Your task to perform on an android device: toggle airplane mode Image 0: 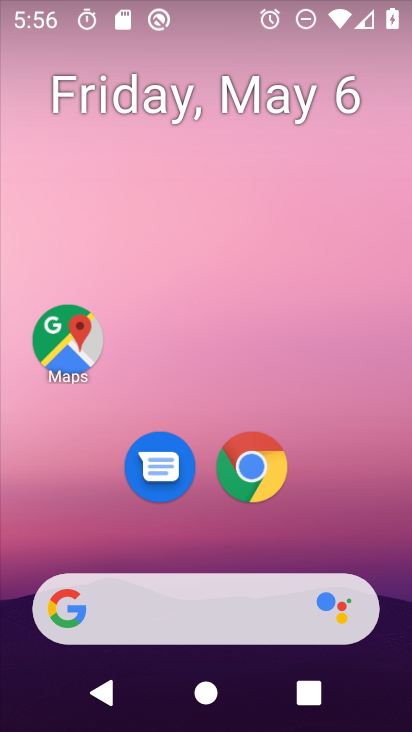
Step 0: drag from (305, 531) to (313, 231)
Your task to perform on an android device: toggle airplane mode Image 1: 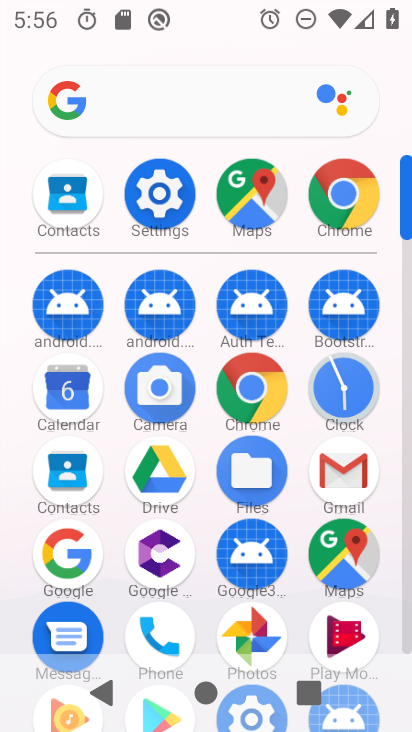
Step 1: click (162, 209)
Your task to perform on an android device: toggle airplane mode Image 2: 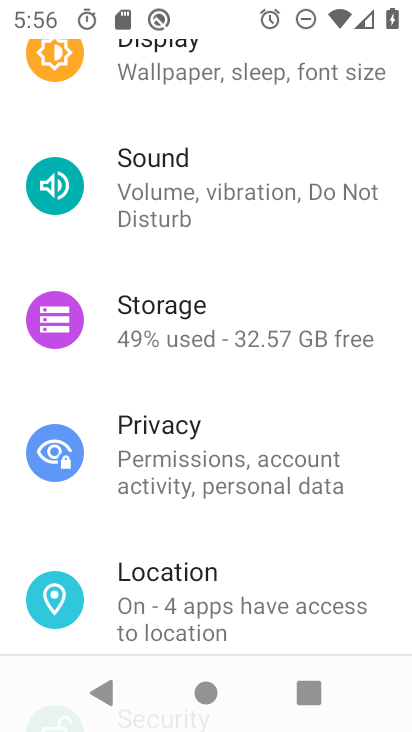
Step 2: drag from (233, 559) to (247, 241)
Your task to perform on an android device: toggle airplane mode Image 3: 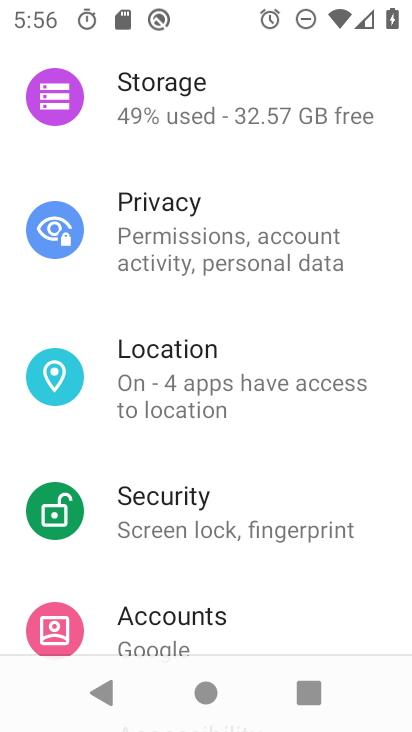
Step 3: drag from (216, 575) to (212, 191)
Your task to perform on an android device: toggle airplane mode Image 4: 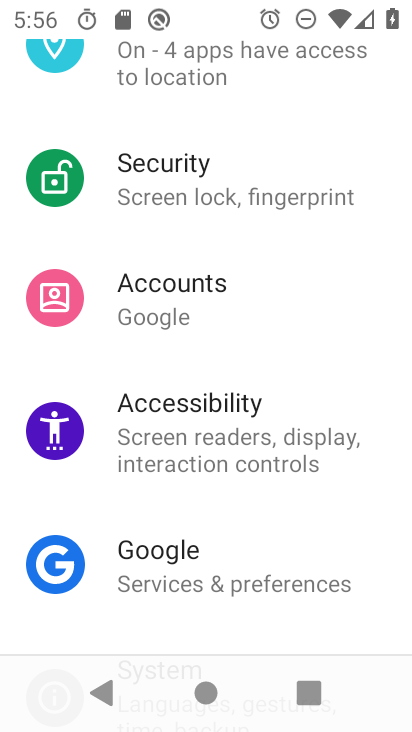
Step 4: drag from (274, 556) to (285, 239)
Your task to perform on an android device: toggle airplane mode Image 5: 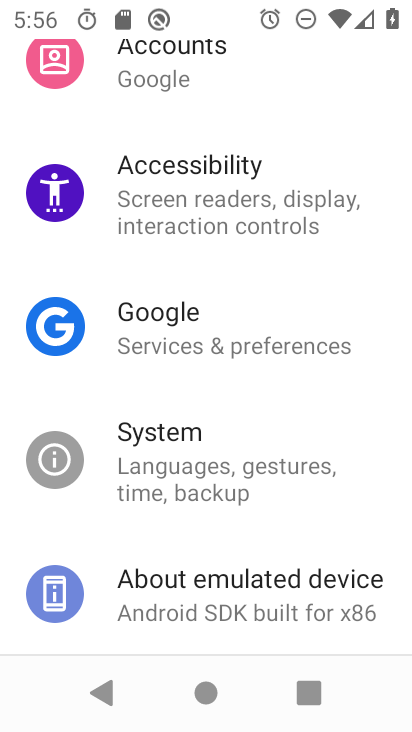
Step 5: drag from (219, 242) to (189, 561)
Your task to perform on an android device: toggle airplane mode Image 6: 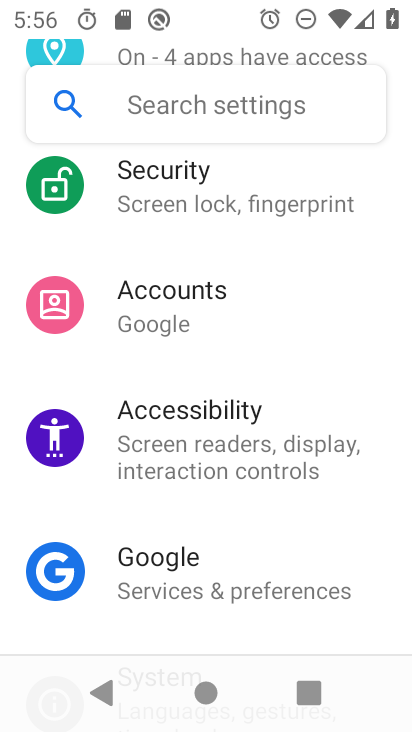
Step 6: drag from (212, 312) to (161, 540)
Your task to perform on an android device: toggle airplane mode Image 7: 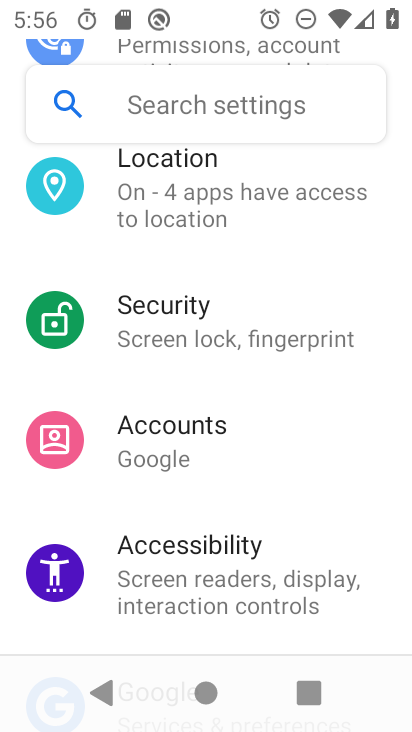
Step 7: drag from (215, 341) to (186, 623)
Your task to perform on an android device: toggle airplane mode Image 8: 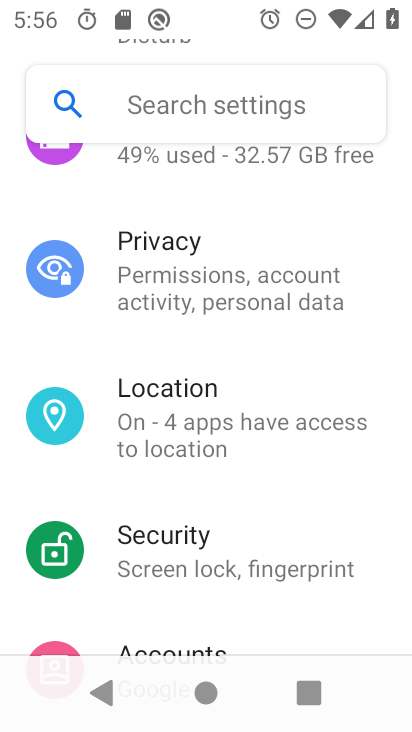
Step 8: drag from (223, 286) to (197, 604)
Your task to perform on an android device: toggle airplane mode Image 9: 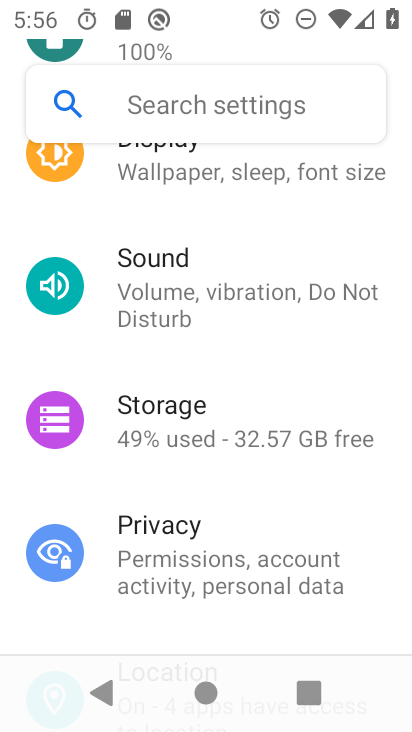
Step 9: drag from (260, 290) to (233, 619)
Your task to perform on an android device: toggle airplane mode Image 10: 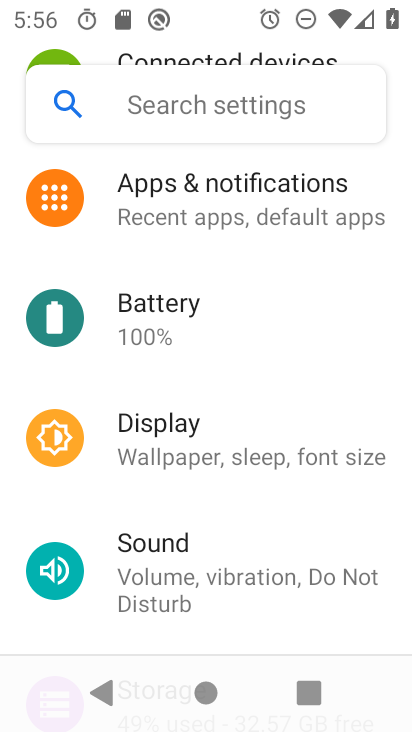
Step 10: drag from (249, 272) to (250, 625)
Your task to perform on an android device: toggle airplane mode Image 11: 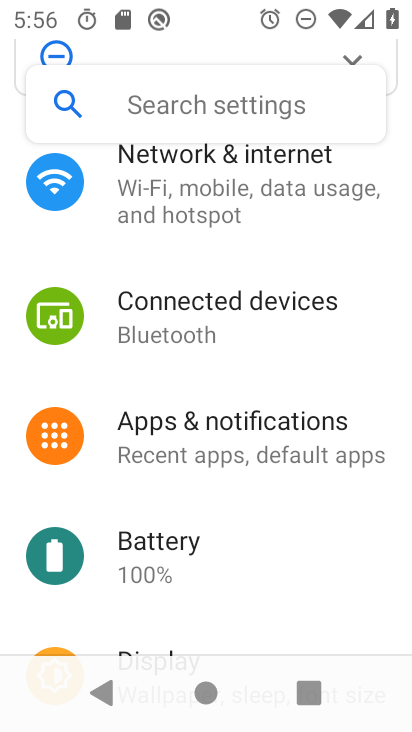
Step 11: click (235, 175)
Your task to perform on an android device: toggle airplane mode Image 12: 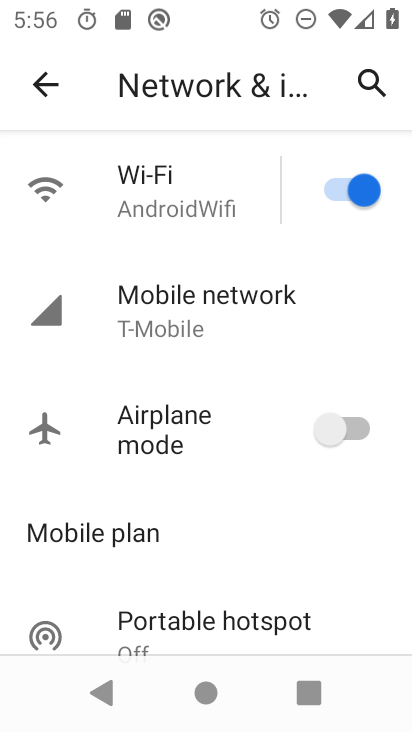
Step 12: click (355, 423)
Your task to perform on an android device: toggle airplane mode Image 13: 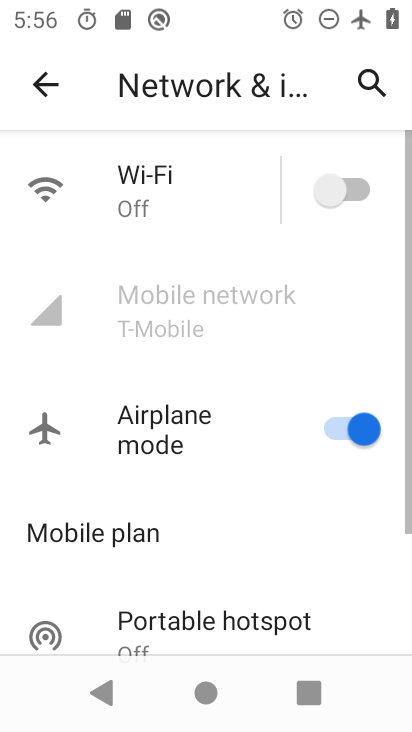
Step 13: task complete